Your task to perform on an android device: Open CNN.com Image 0: 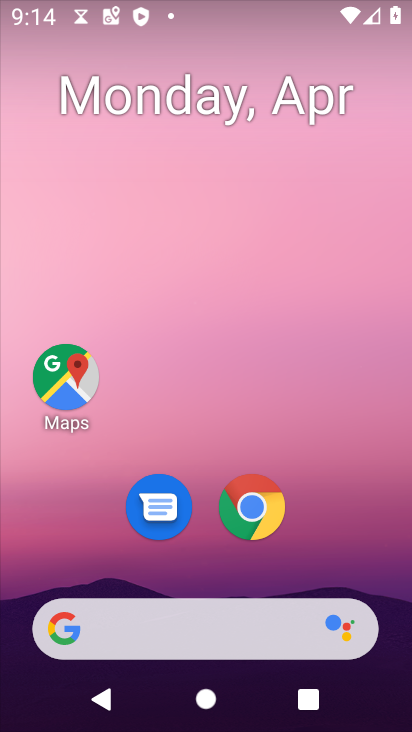
Step 0: click (258, 513)
Your task to perform on an android device: Open CNN.com Image 1: 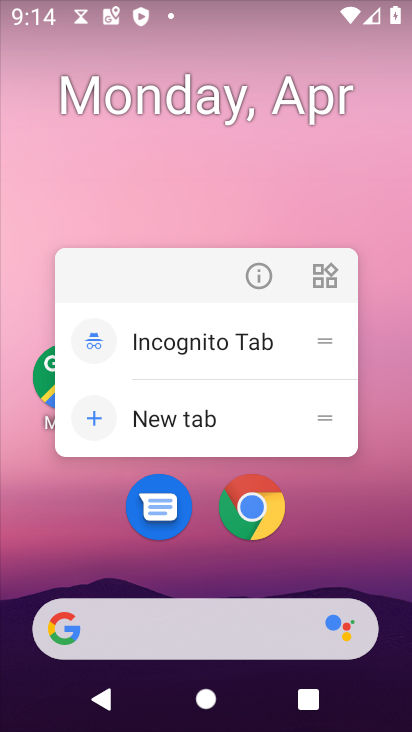
Step 1: click (260, 516)
Your task to perform on an android device: Open CNN.com Image 2: 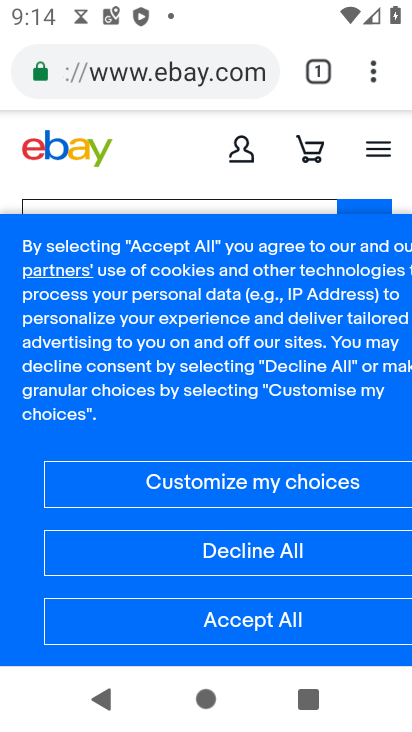
Step 2: click (173, 67)
Your task to perform on an android device: Open CNN.com Image 3: 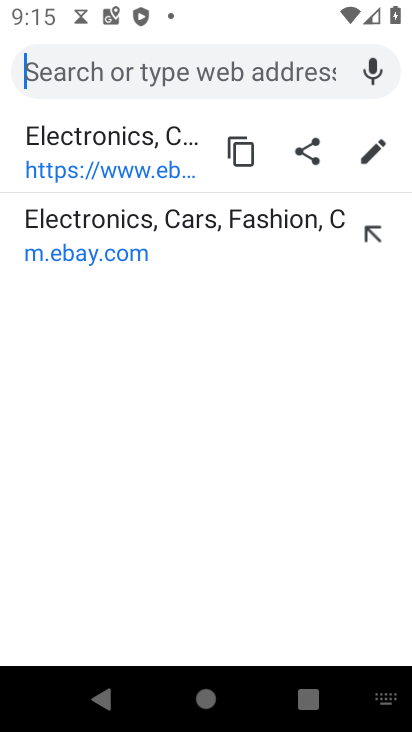
Step 3: type "cnn.com"
Your task to perform on an android device: Open CNN.com Image 4: 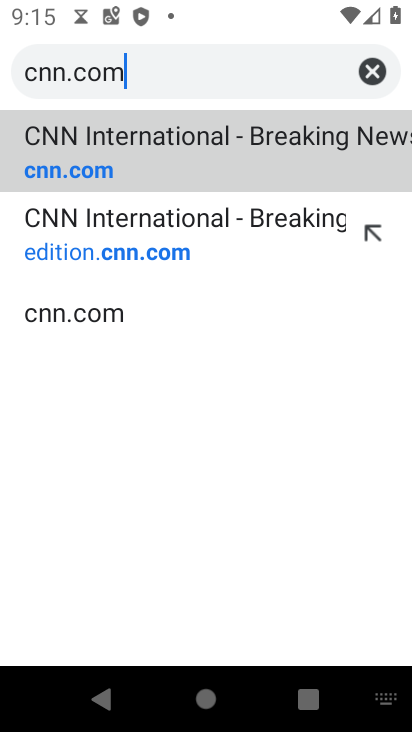
Step 4: click (177, 160)
Your task to perform on an android device: Open CNN.com Image 5: 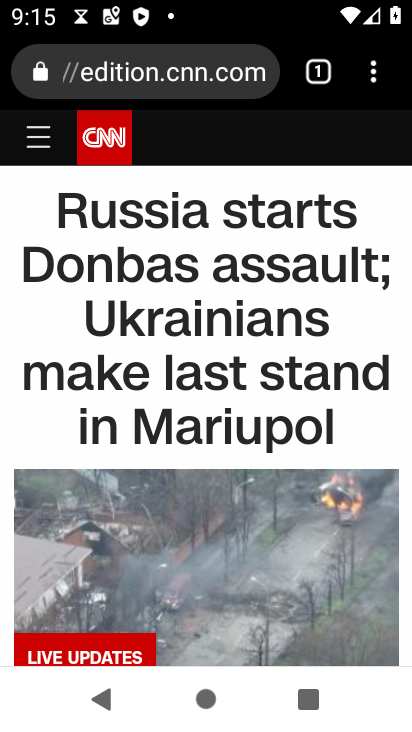
Step 5: task complete